Your task to perform on an android device: Go to Android settings Image 0: 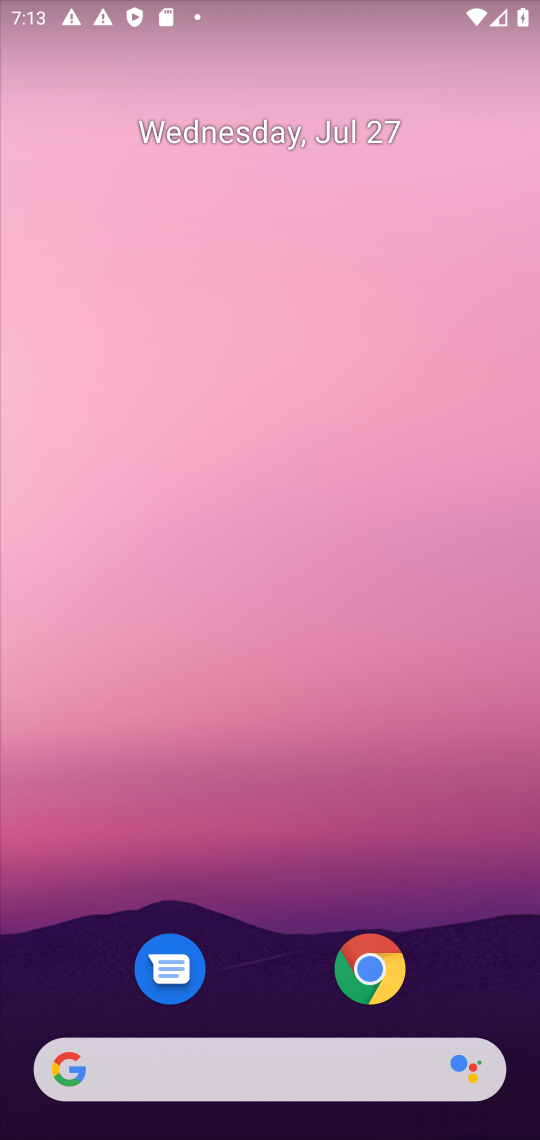
Step 0: drag from (292, 900) to (455, 69)
Your task to perform on an android device: Go to Android settings Image 1: 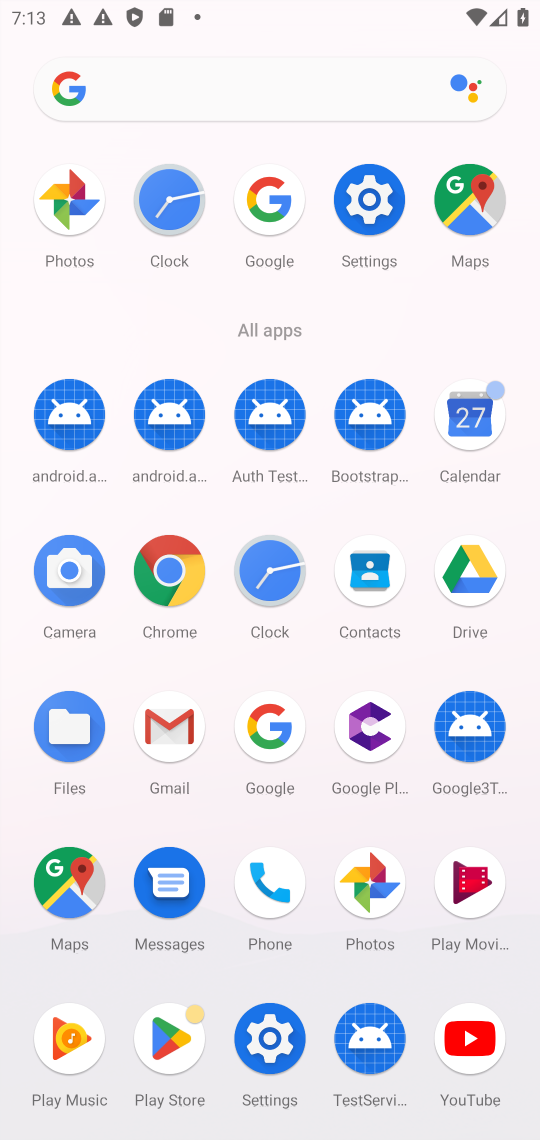
Step 1: click (276, 1046)
Your task to perform on an android device: Go to Android settings Image 2: 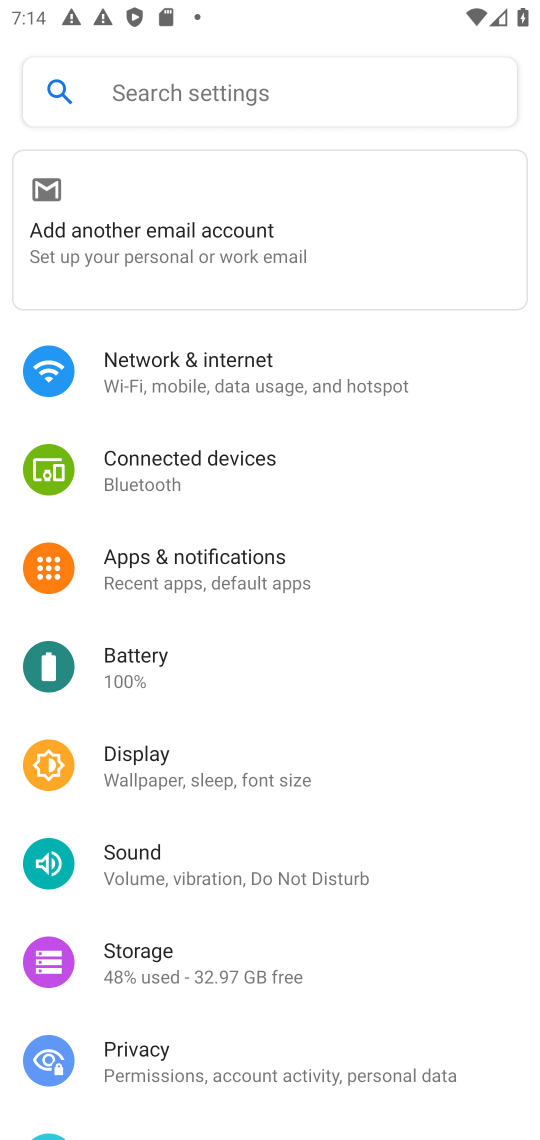
Step 2: drag from (267, 884) to (331, 154)
Your task to perform on an android device: Go to Android settings Image 3: 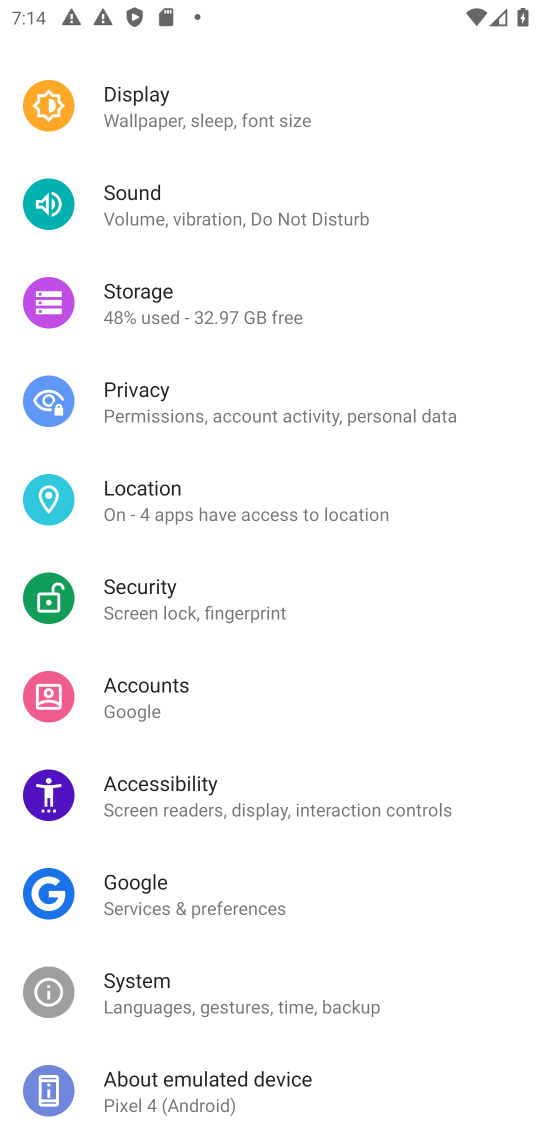
Step 3: click (253, 1077)
Your task to perform on an android device: Go to Android settings Image 4: 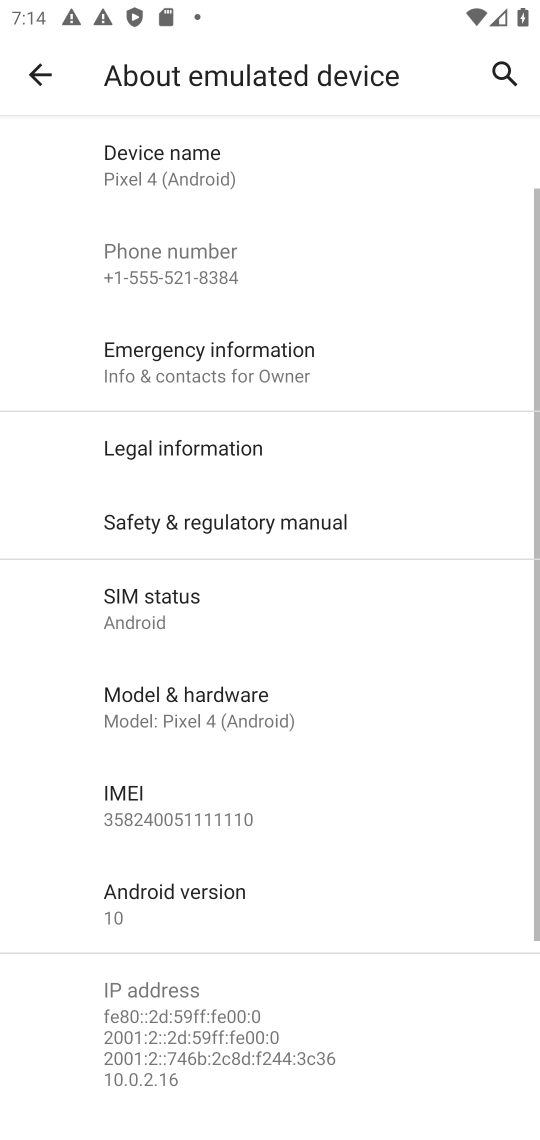
Step 4: task complete